Your task to perform on an android device: turn on javascript in the chrome app Image 0: 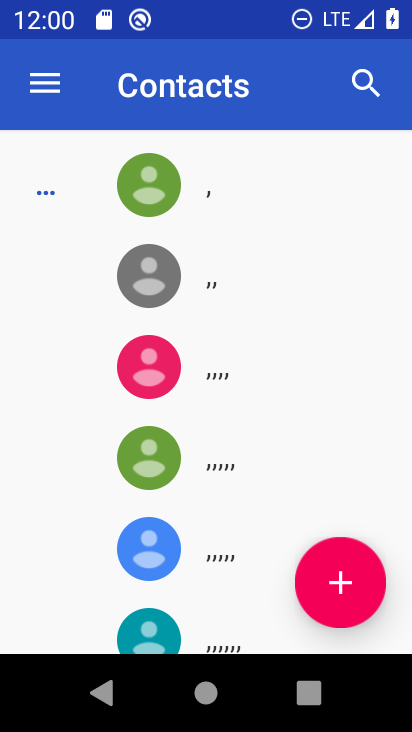
Step 0: press home button
Your task to perform on an android device: turn on javascript in the chrome app Image 1: 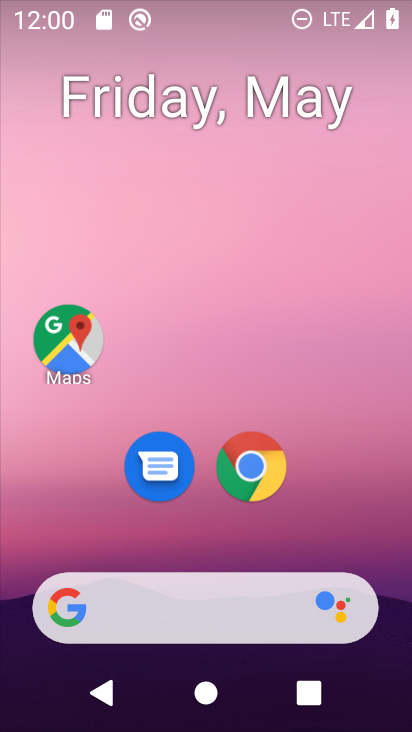
Step 1: drag from (330, 582) to (367, 0)
Your task to perform on an android device: turn on javascript in the chrome app Image 2: 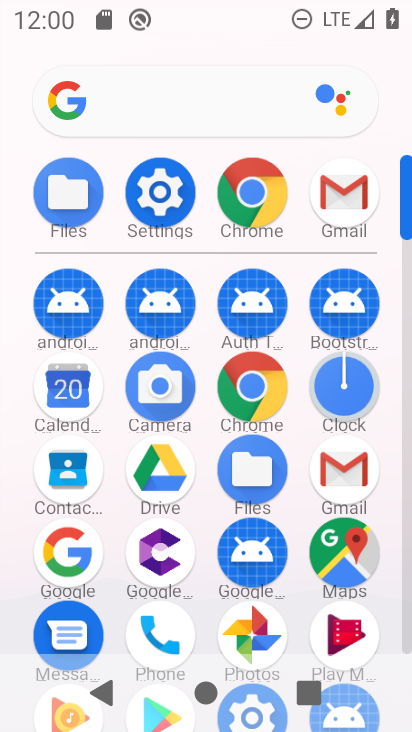
Step 2: click (272, 401)
Your task to perform on an android device: turn on javascript in the chrome app Image 3: 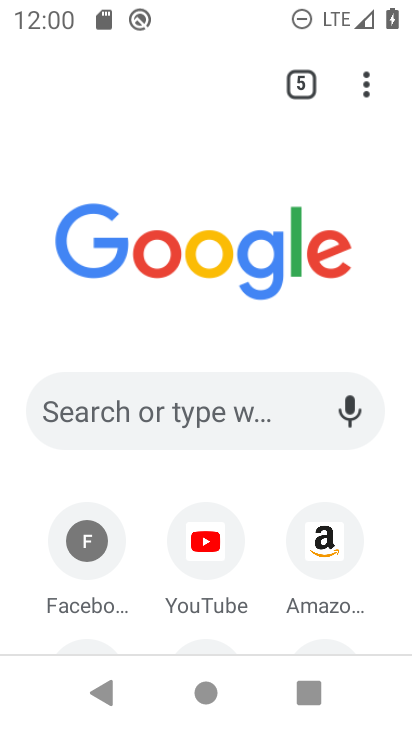
Step 3: drag from (368, 79) to (109, 527)
Your task to perform on an android device: turn on javascript in the chrome app Image 4: 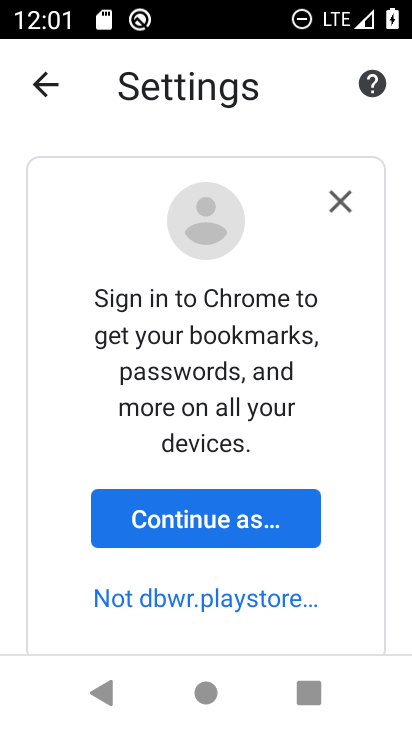
Step 4: drag from (286, 632) to (354, 156)
Your task to perform on an android device: turn on javascript in the chrome app Image 5: 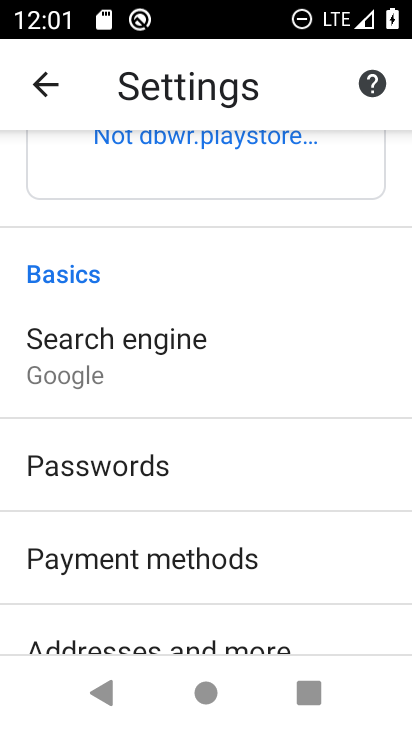
Step 5: drag from (317, 612) to (354, 133)
Your task to perform on an android device: turn on javascript in the chrome app Image 6: 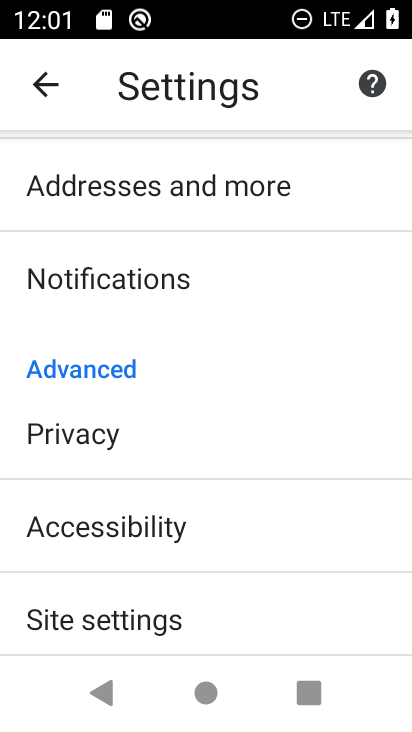
Step 6: click (163, 602)
Your task to perform on an android device: turn on javascript in the chrome app Image 7: 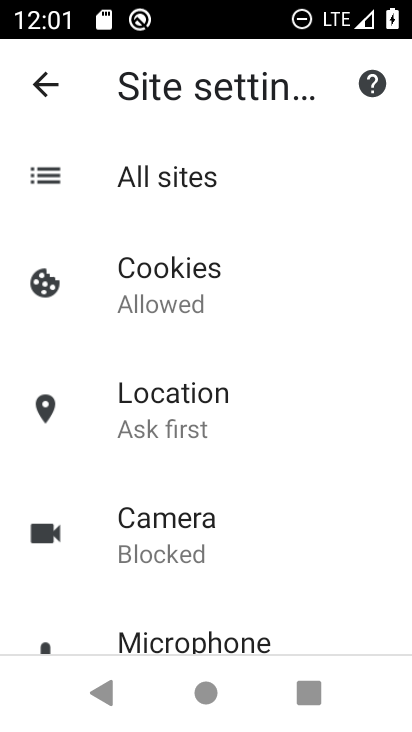
Step 7: drag from (255, 617) to (309, 119)
Your task to perform on an android device: turn on javascript in the chrome app Image 8: 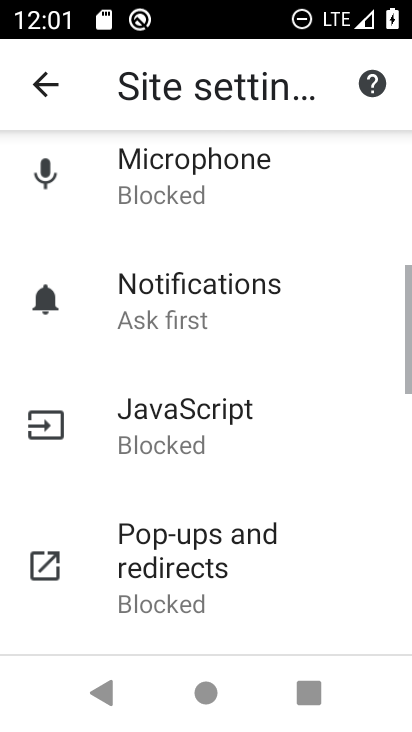
Step 8: click (251, 414)
Your task to perform on an android device: turn on javascript in the chrome app Image 9: 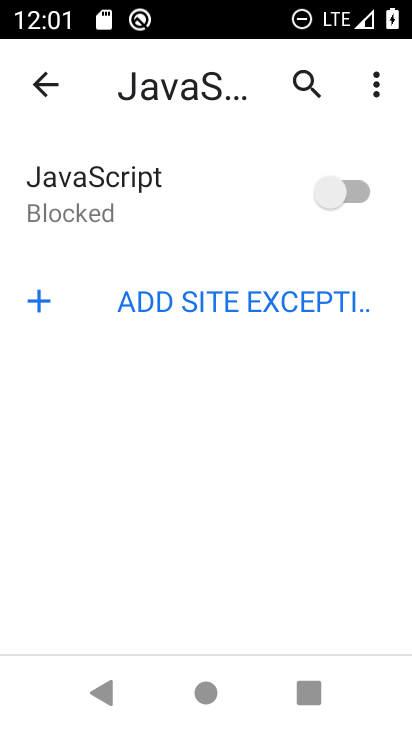
Step 9: click (357, 192)
Your task to perform on an android device: turn on javascript in the chrome app Image 10: 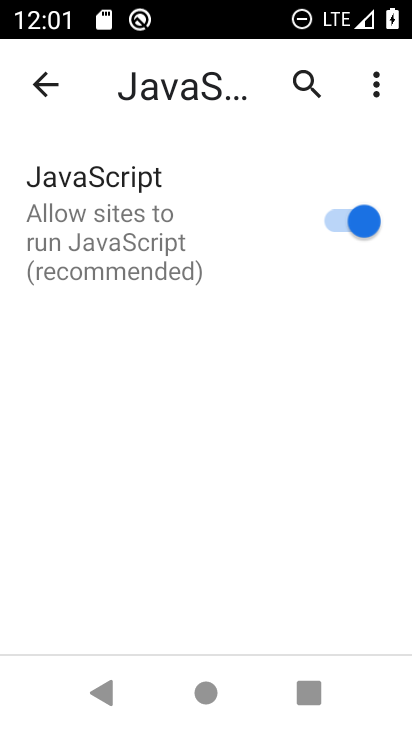
Step 10: task complete